Your task to perform on an android device: Go to privacy settings Image 0: 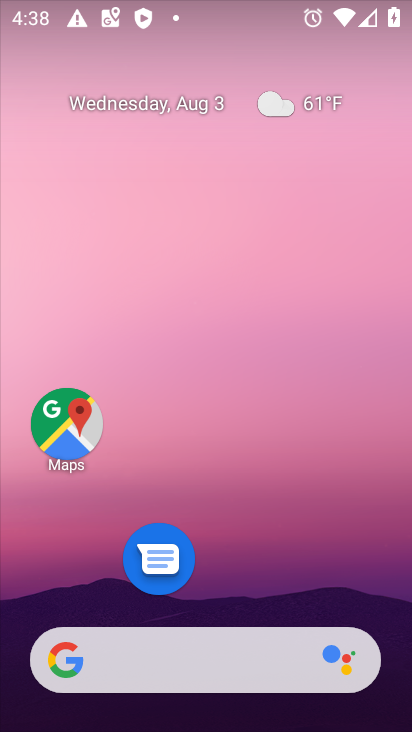
Step 0: drag from (247, 640) to (224, 270)
Your task to perform on an android device: Go to privacy settings Image 1: 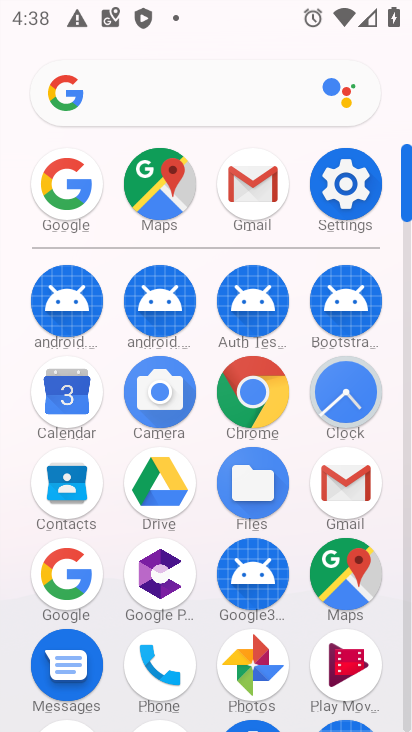
Step 1: click (330, 192)
Your task to perform on an android device: Go to privacy settings Image 2: 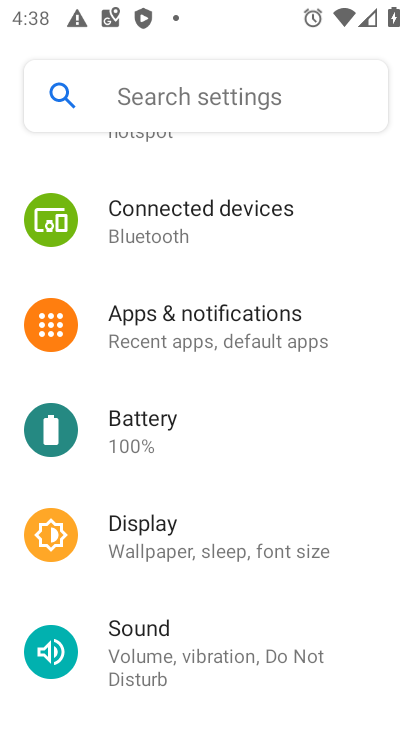
Step 2: drag from (183, 679) to (174, 327)
Your task to perform on an android device: Go to privacy settings Image 3: 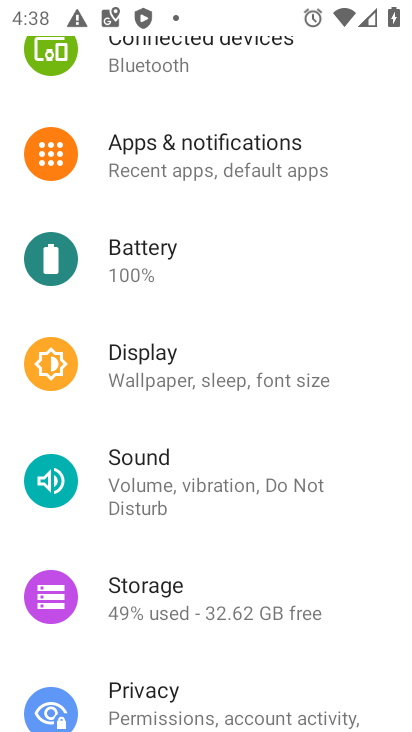
Step 3: click (147, 701)
Your task to perform on an android device: Go to privacy settings Image 4: 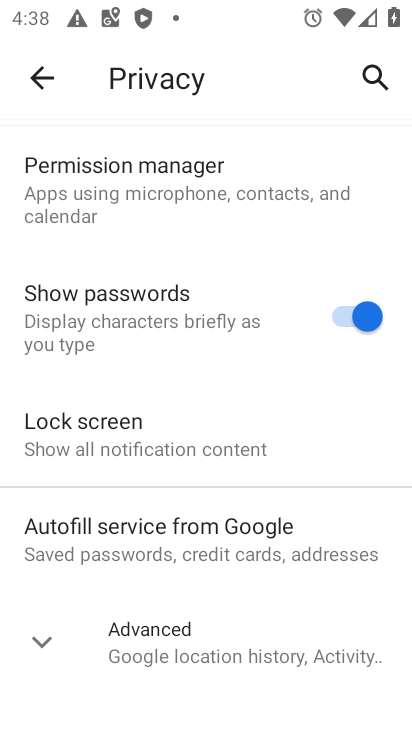
Step 4: click (142, 637)
Your task to perform on an android device: Go to privacy settings Image 5: 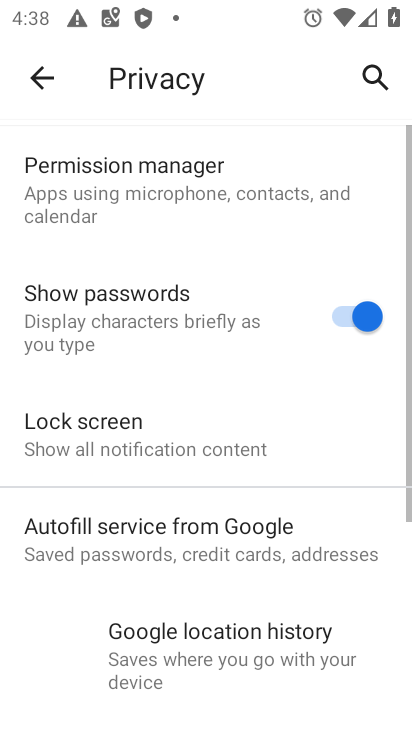
Step 5: task complete